Your task to perform on an android device: open a bookmark in the chrome app Image 0: 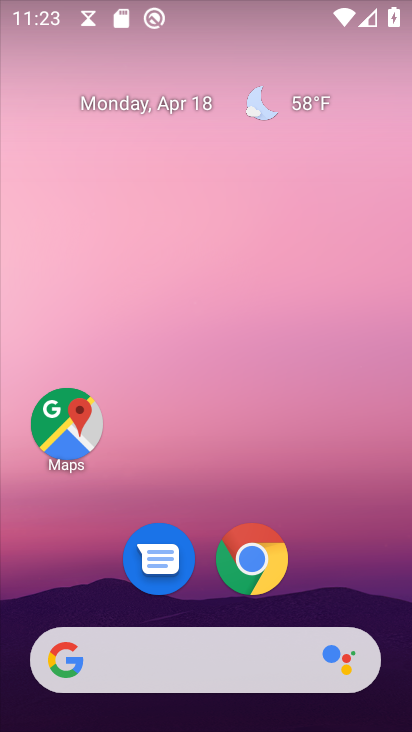
Step 0: click (57, 430)
Your task to perform on an android device: open a bookmark in the chrome app Image 1: 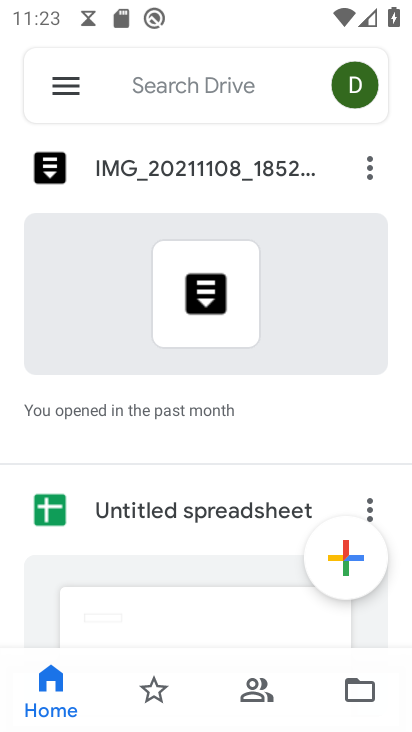
Step 1: press home button
Your task to perform on an android device: open a bookmark in the chrome app Image 2: 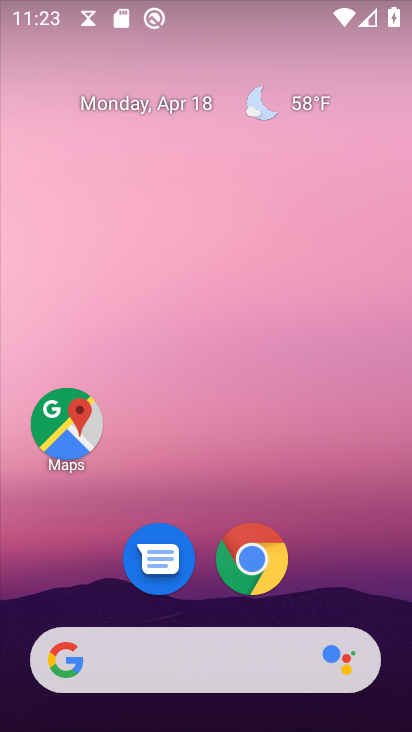
Step 2: click (251, 564)
Your task to perform on an android device: open a bookmark in the chrome app Image 3: 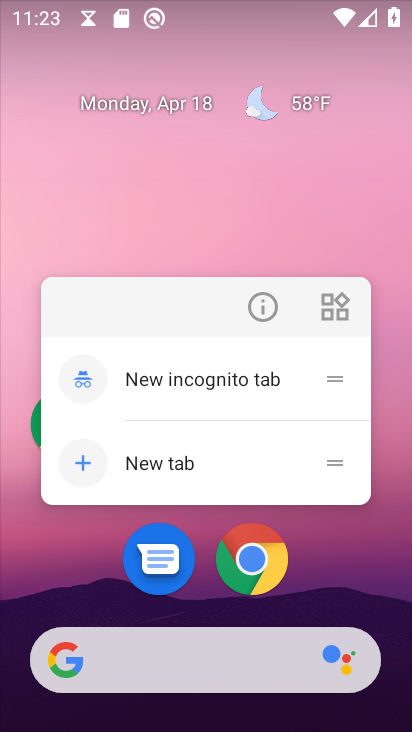
Step 3: click (254, 582)
Your task to perform on an android device: open a bookmark in the chrome app Image 4: 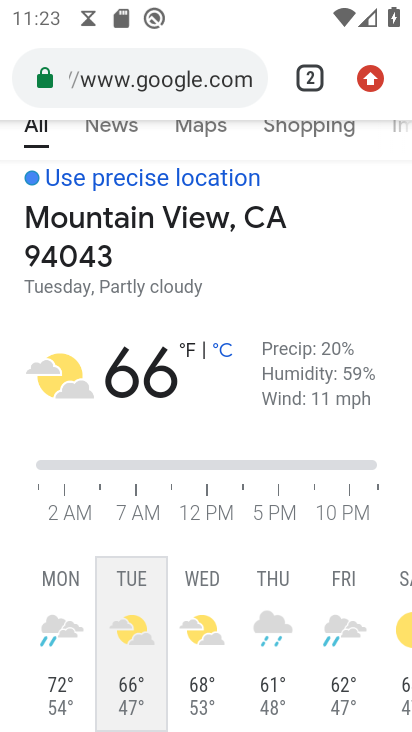
Step 4: click (378, 86)
Your task to perform on an android device: open a bookmark in the chrome app Image 5: 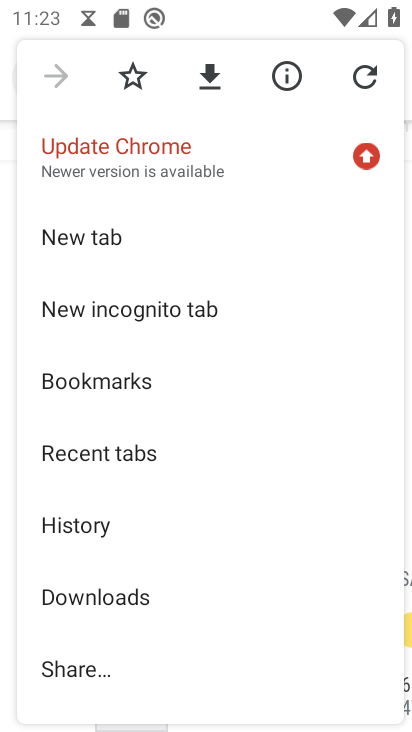
Step 5: drag from (86, 666) to (75, 206)
Your task to perform on an android device: open a bookmark in the chrome app Image 6: 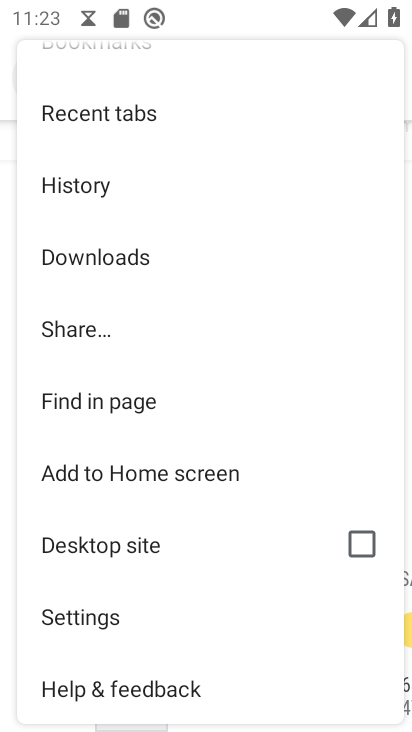
Step 6: drag from (77, 257) to (100, 642)
Your task to perform on an android device: open a bookmark in the chrome app Image 7: 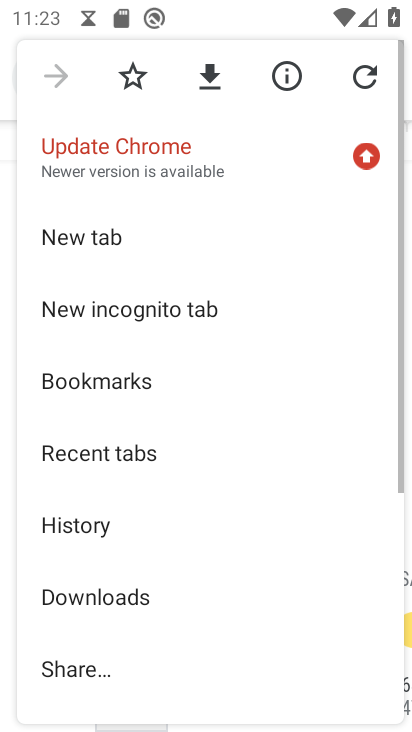
Step 7: click (78, 376)
Your task to perform on an android device: open a bookmark in the chrome app Image 8: 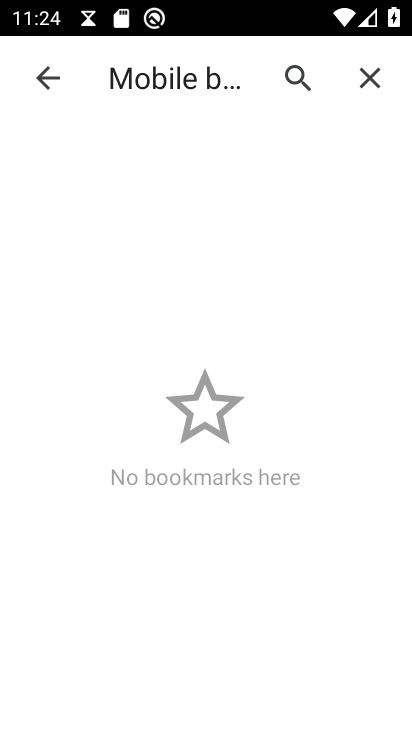
Step 8: task complete